Your task to perform on an android device: change notifications settings Image 0: 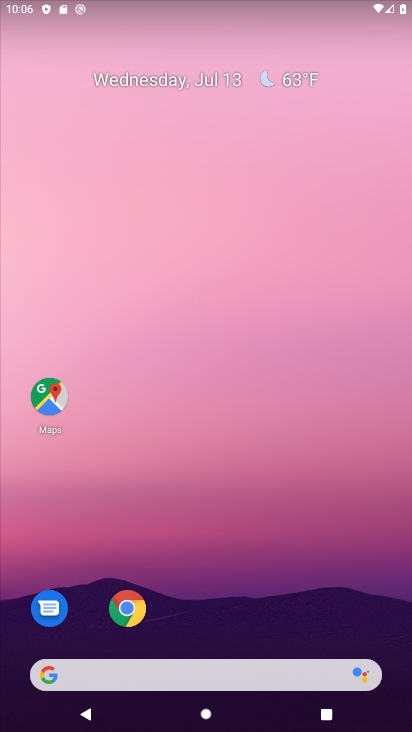
Step 0: drag from (259, 605) to (248, 30)
Your task to perform on an android device: change notifications settings Image 1: 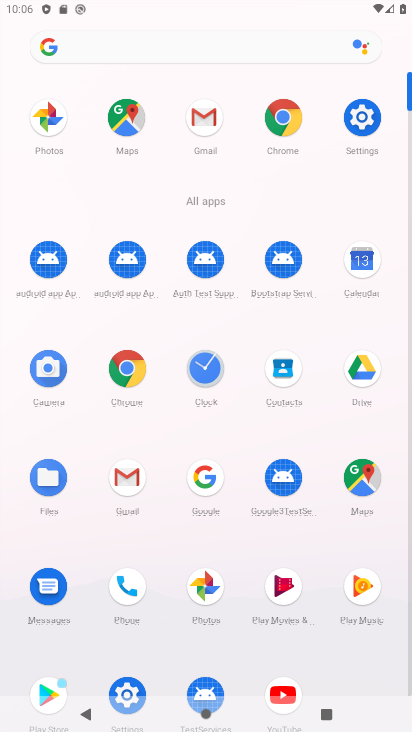
Step 1: click (136, 692)
Your task to perform on an android device: change notifications settings Image 2: 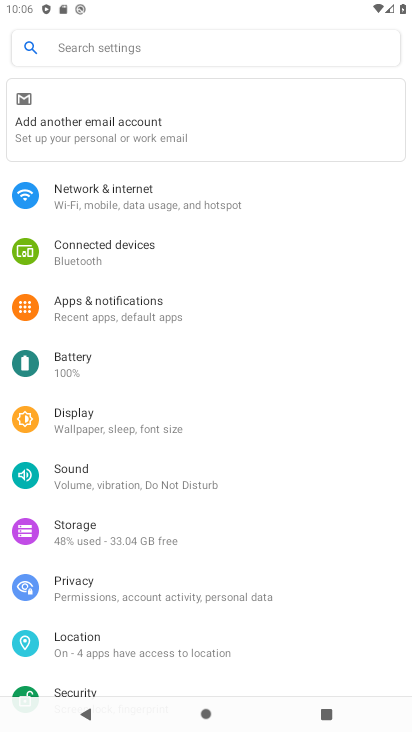
Step 2: click (135, 294)
Your task to perform on an android device: change notifications settings Image 3: 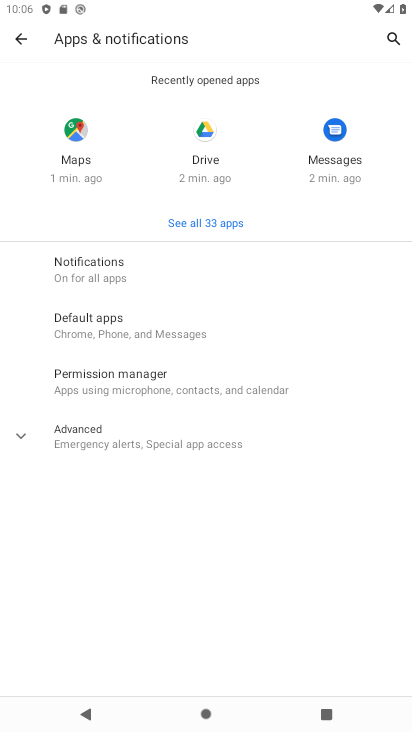
Step 3: click (103, 257)
Your task to perform on an android device: change notifications settings Image 4: 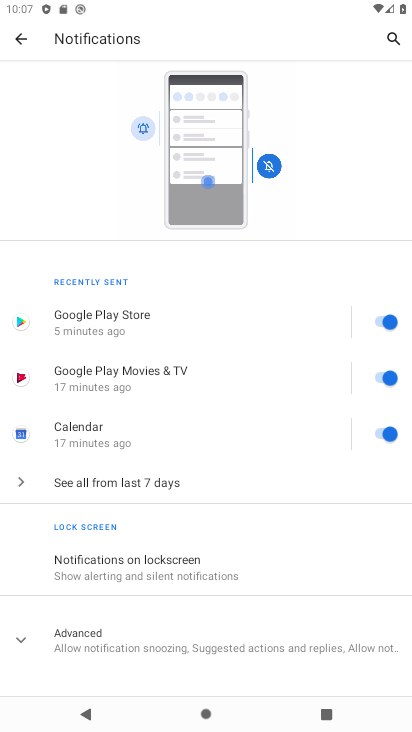
Step 4: click (390, 369)
Your task to perform on an android device: change notifications settings Image 5: 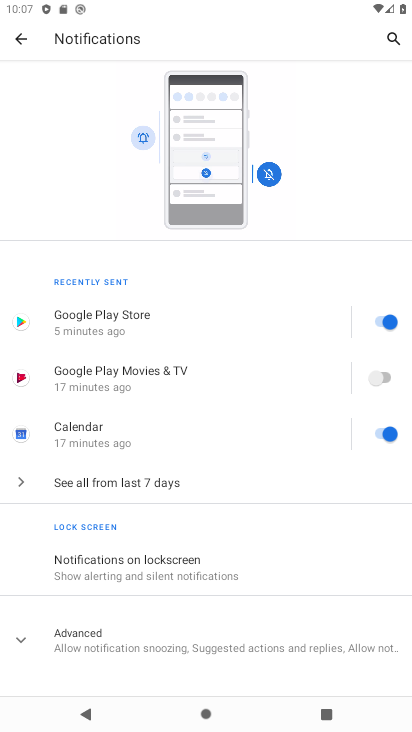
Step 5: task complete